Your task to perform on an android device: open wifi settings Image 0: 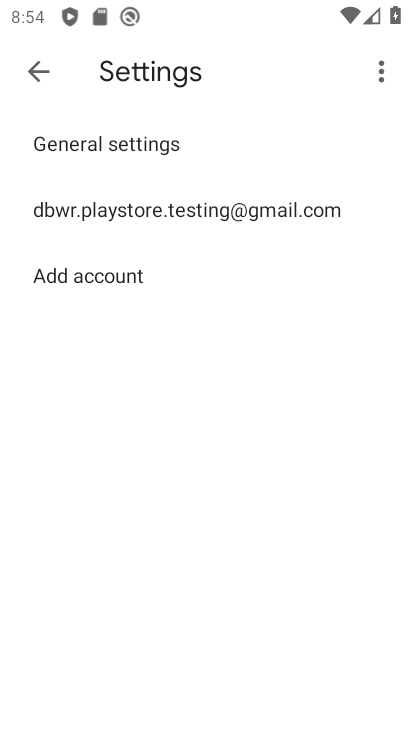
Step 0: press back button
Your task to perform on an android device: open wifi settings Image 1: 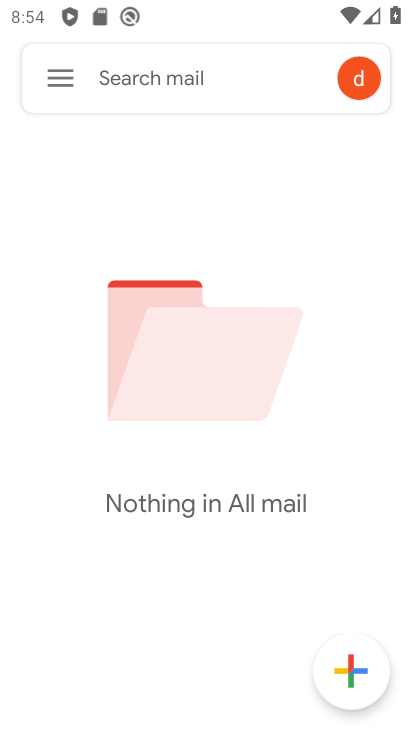
Step 1: press back button
Your task to perform on an android device: open wifi settings Image 2: 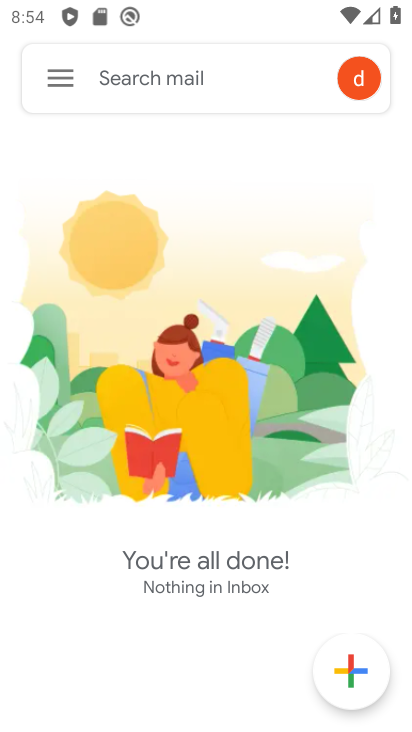
Step 2: press back button
Your task to perform on an android device: open wifi settings Image 3: 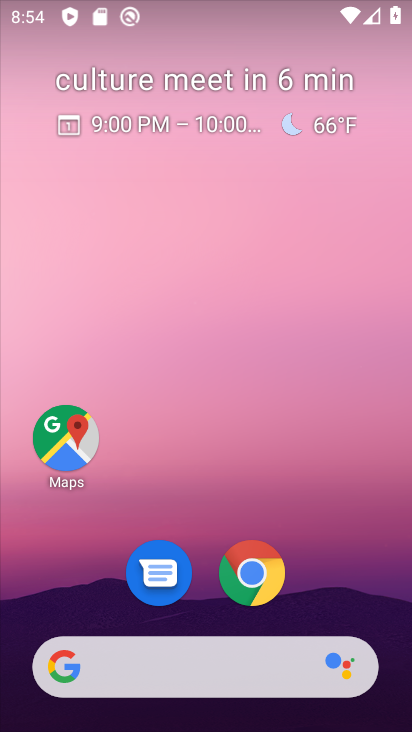
Step 3: drag from (105, 28) to (107, 458)
Your task to perform on an android device: open wifi settings Image 4: 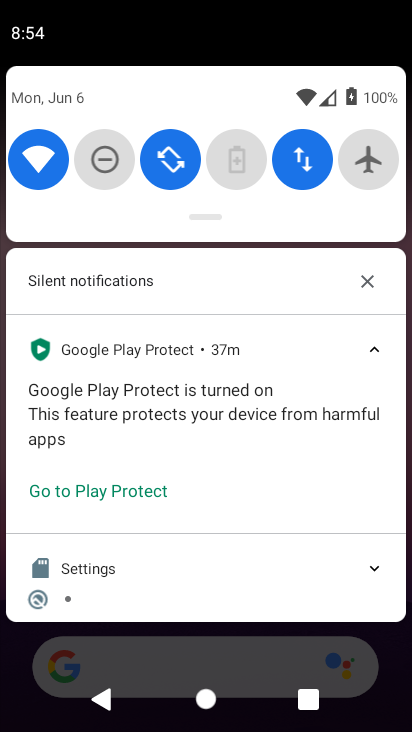
Step 4: click (49, 154)
Your task to perform on an android device: open wifi settings Image 5: 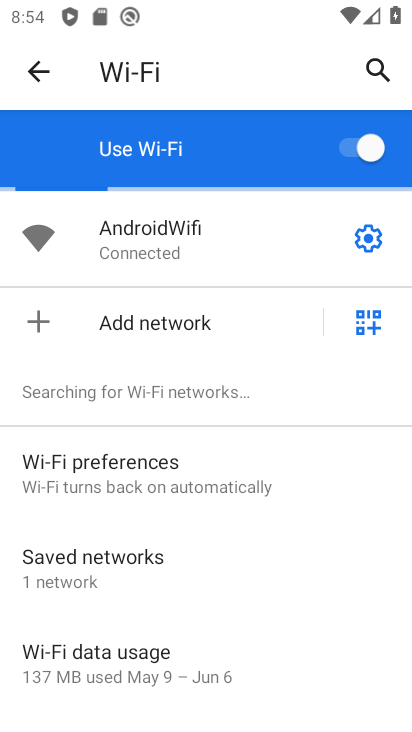
Step 5: task complete